Your task to perform on an android device: Open Reddit.com Image 0: 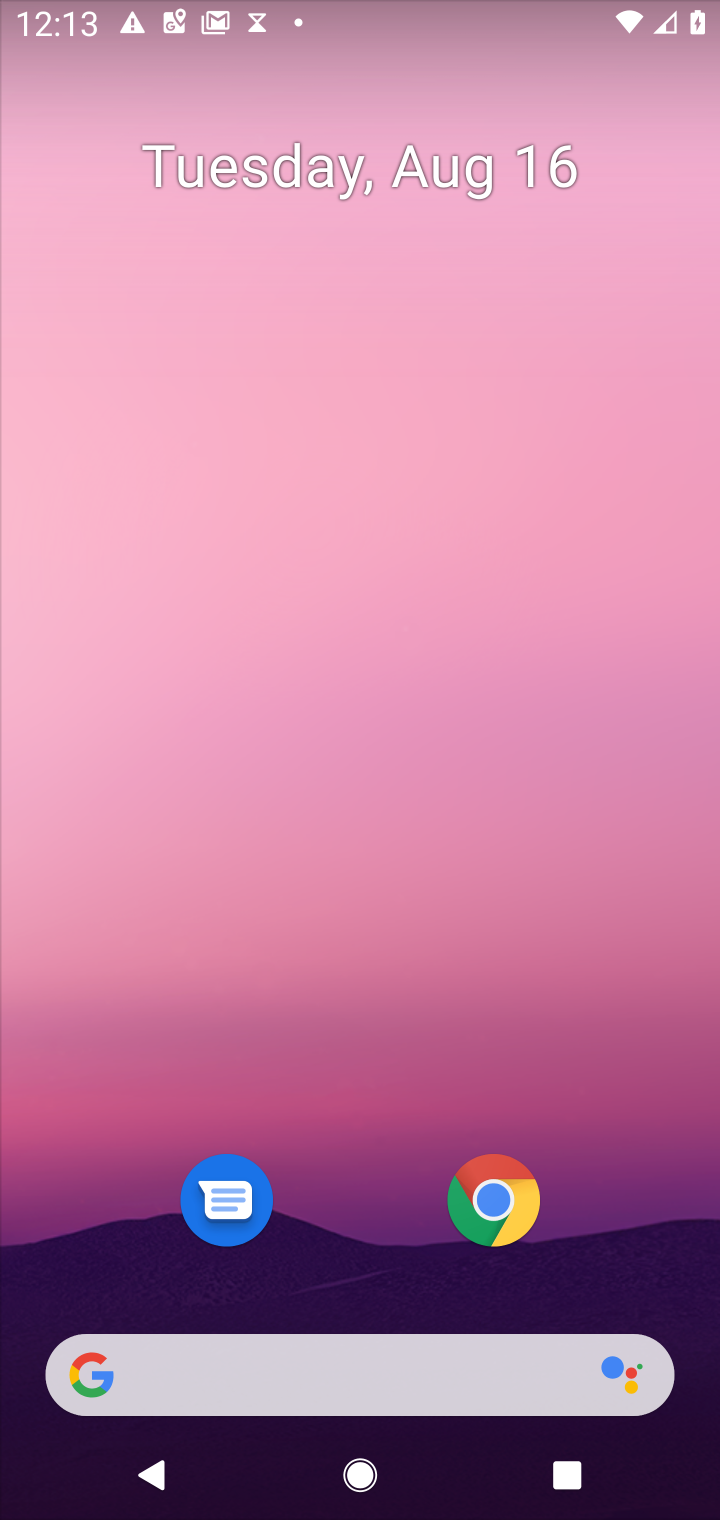
Step 0: click (522, 1203)
Your task to perform on an android device: Open Reddit.com Image 1: 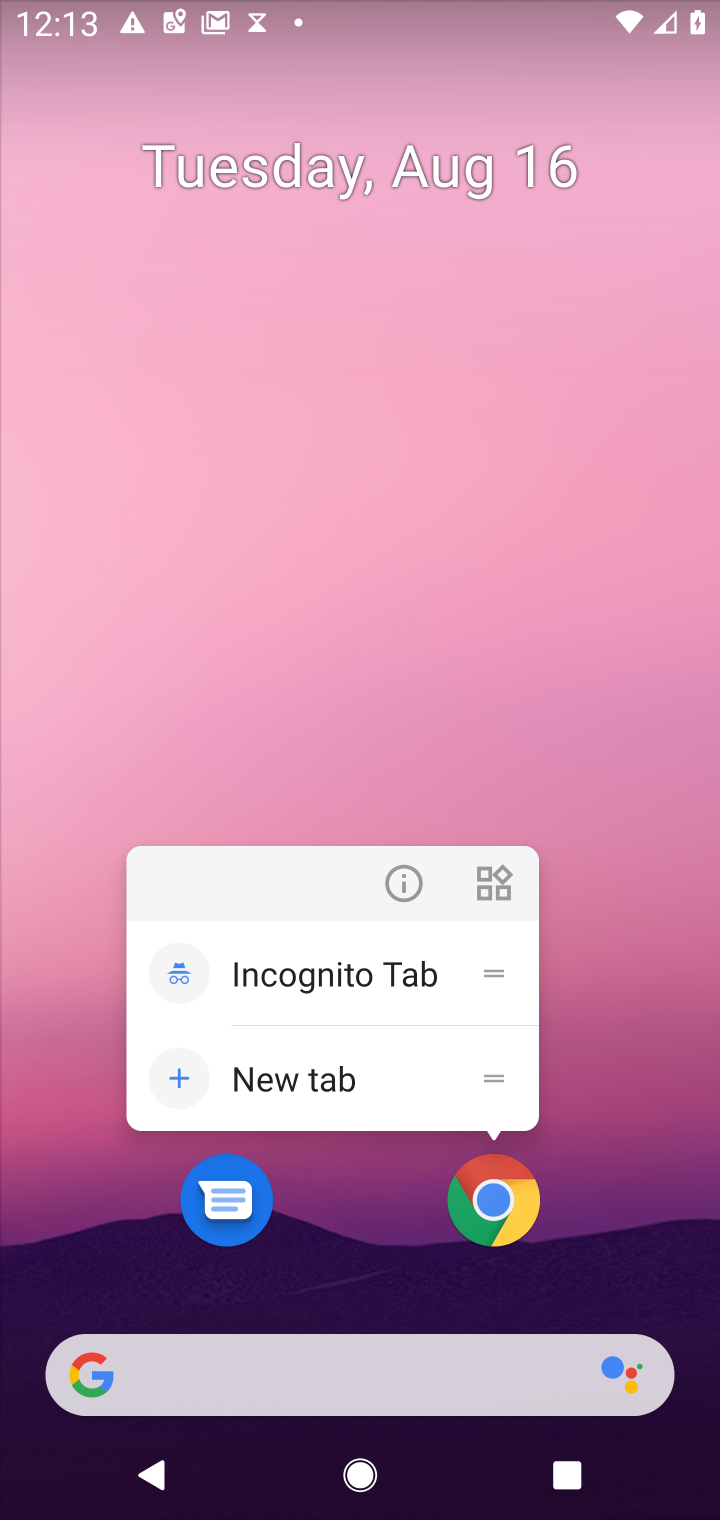
Step 1: click (522, 1203)
Your task to perform on an android device: Open Reddit.com Image 2: 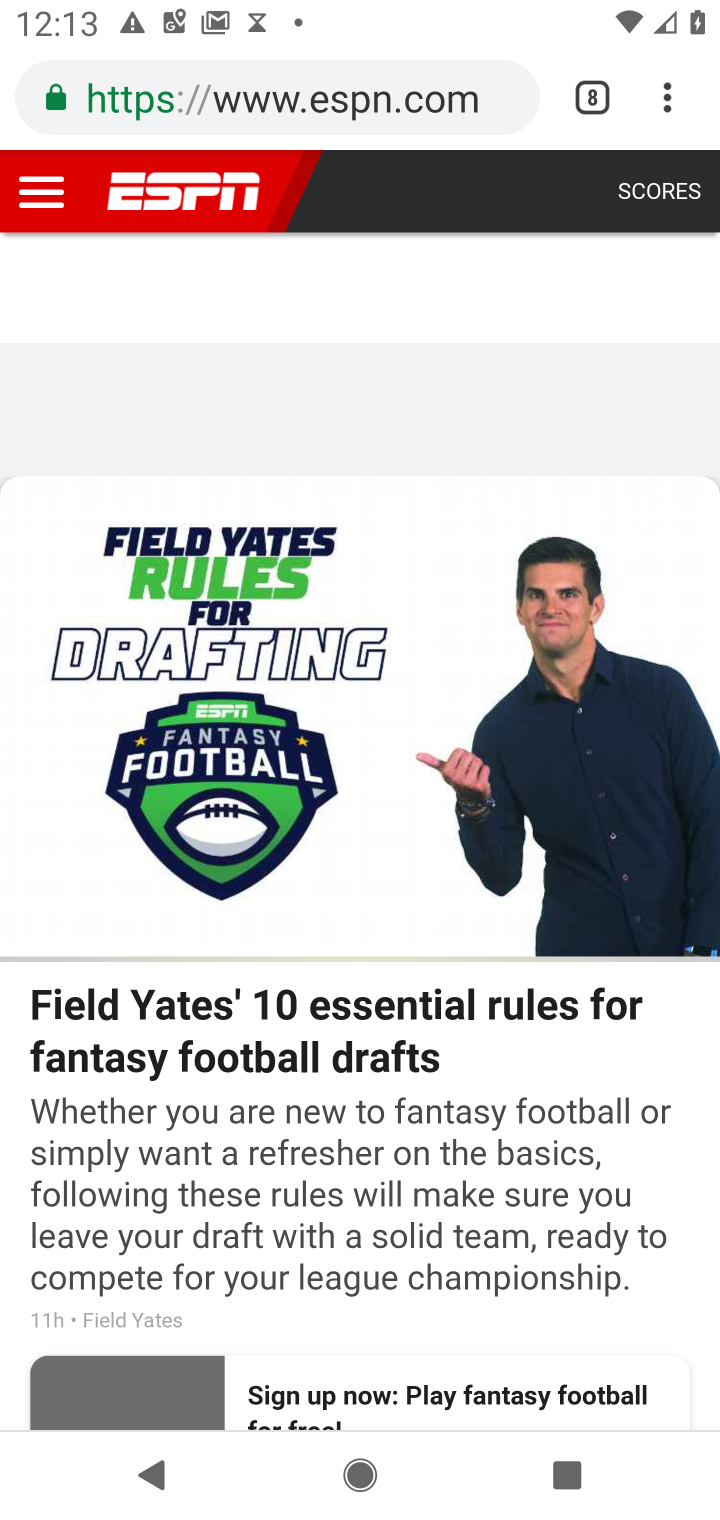
Step 2: click (579, 77)
Your task to perform on an android device: Open Reddit.com Image 3: 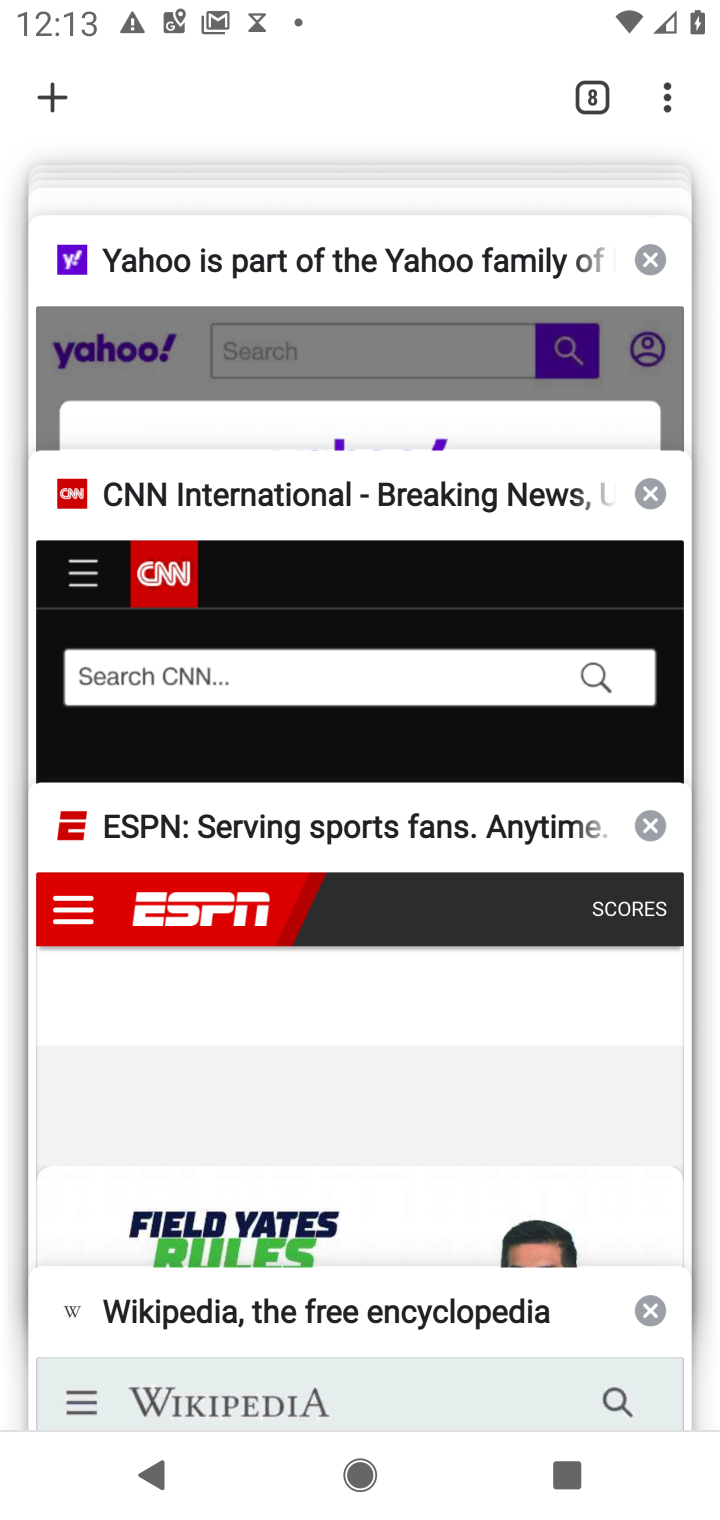
Step 3: click (52, 94)
Your task to perform on an android device: Open Reddit.com Image 4: 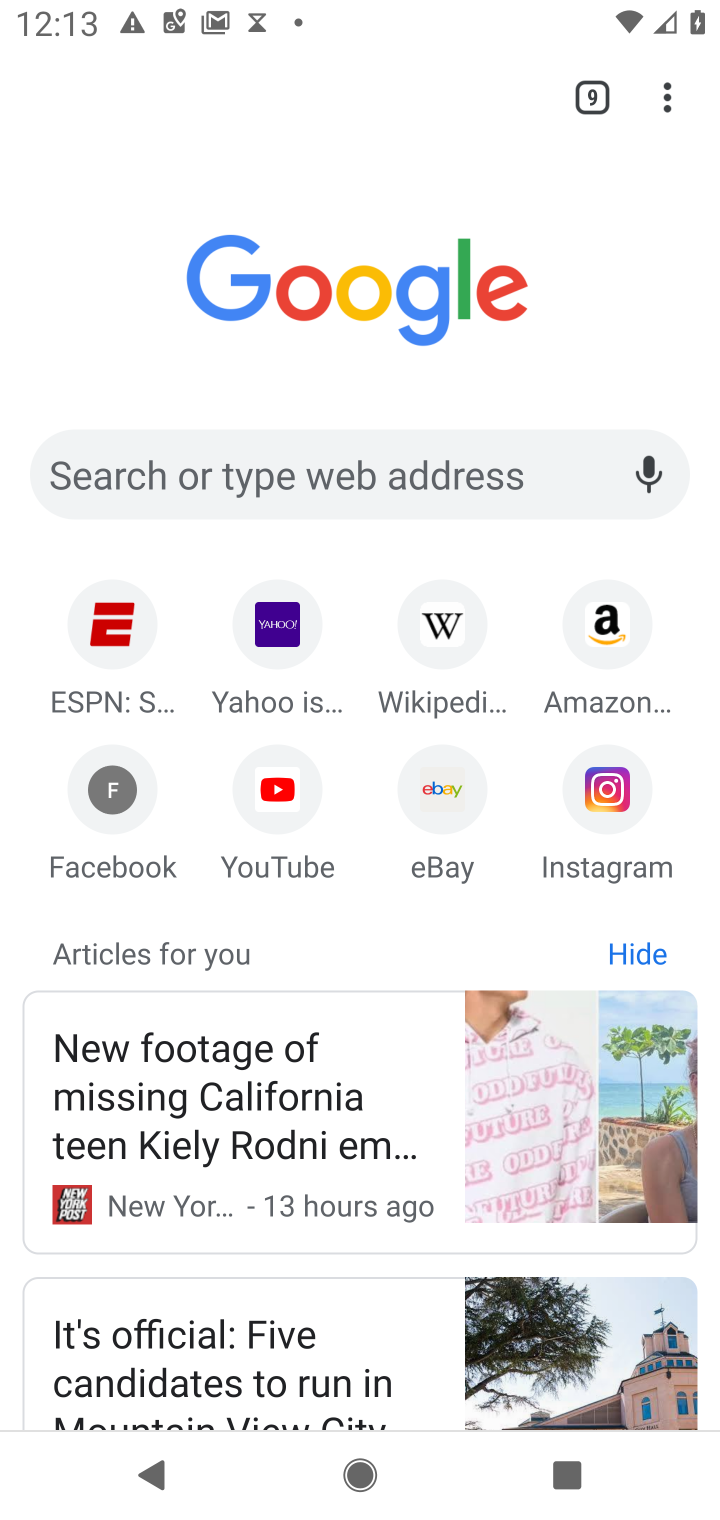
Step 4: click (312, 490)
Your task to perform on an android device: Open Reddit.com Image 5: 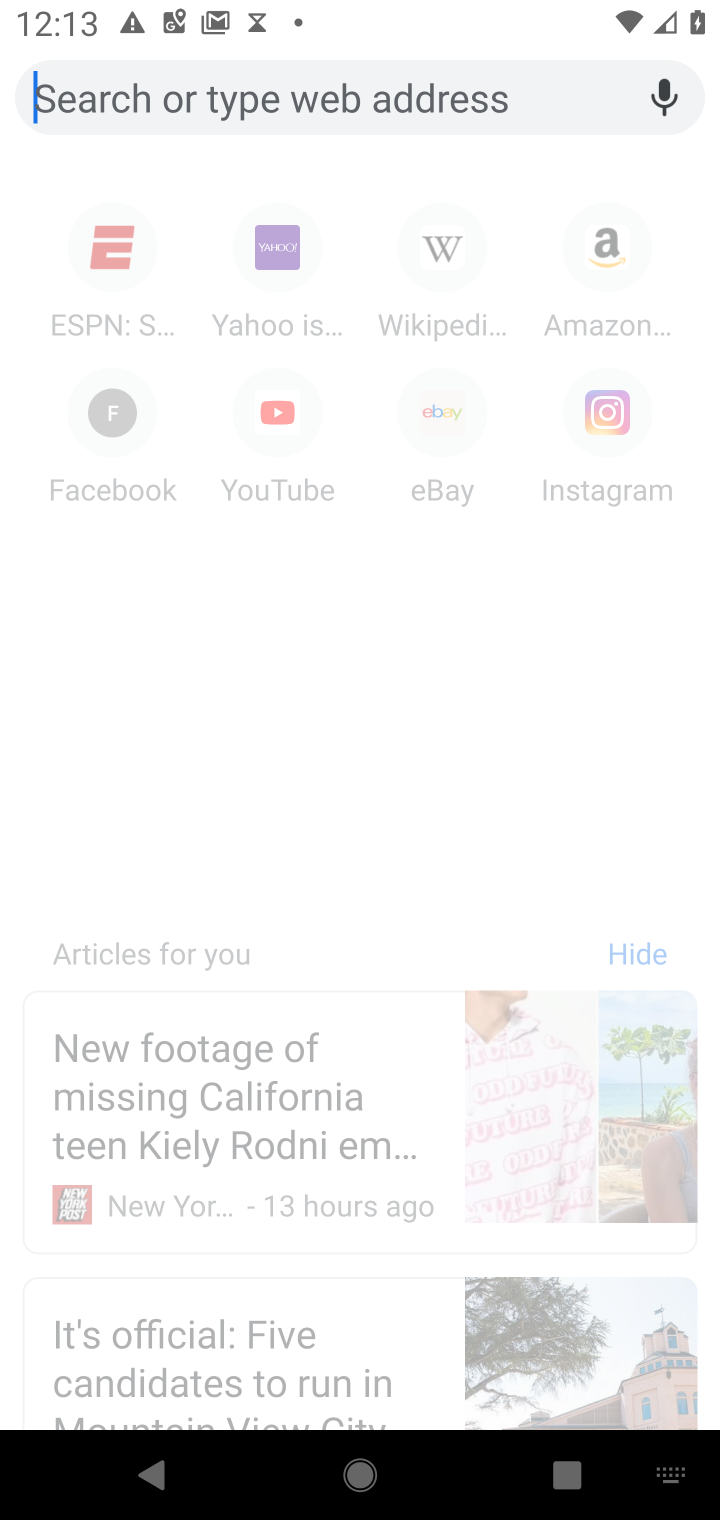
Step 5: type "Reddit.com"
Your task to perform on an android device: Open Reddit.com Image 6: 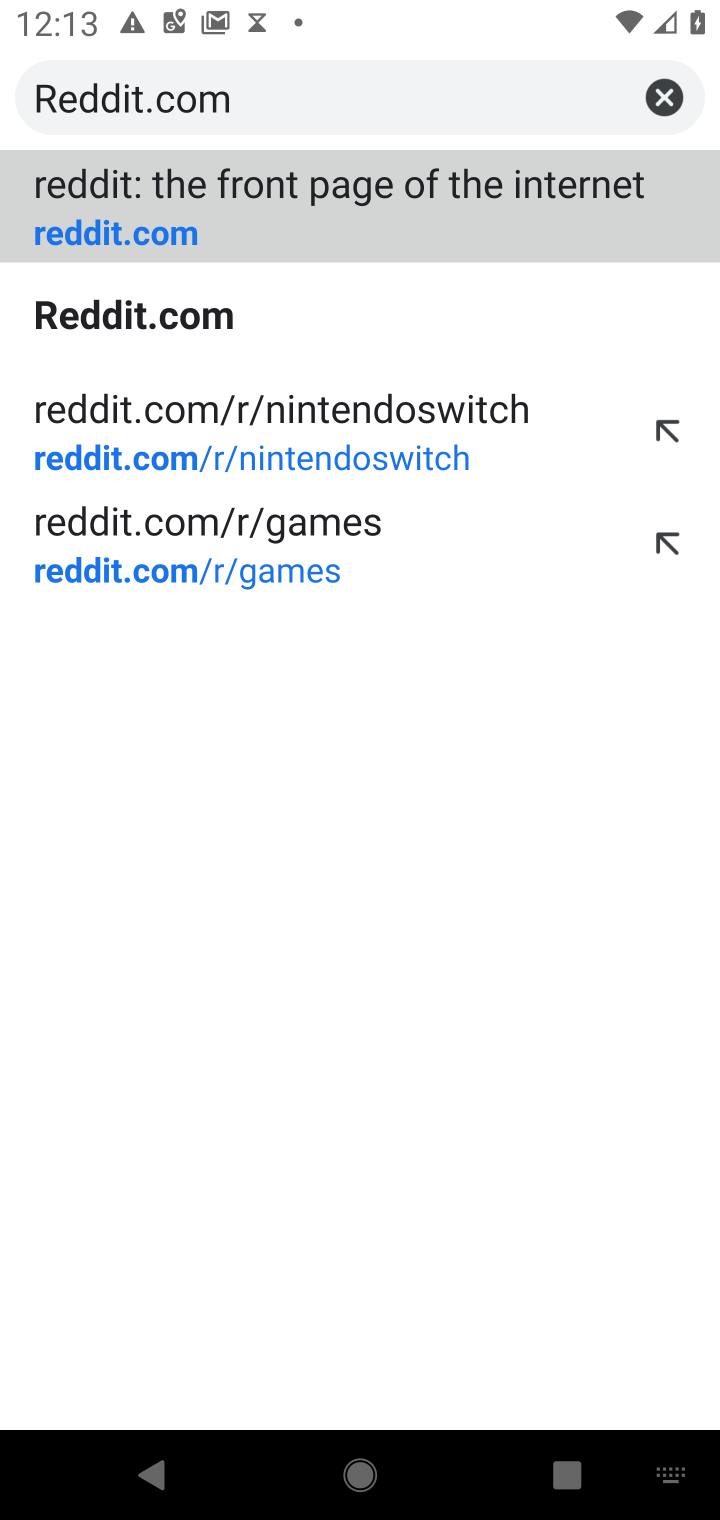
Step 6: click (243, 187)
Your task to perform on an android device: Open Reddit.com Image 7: 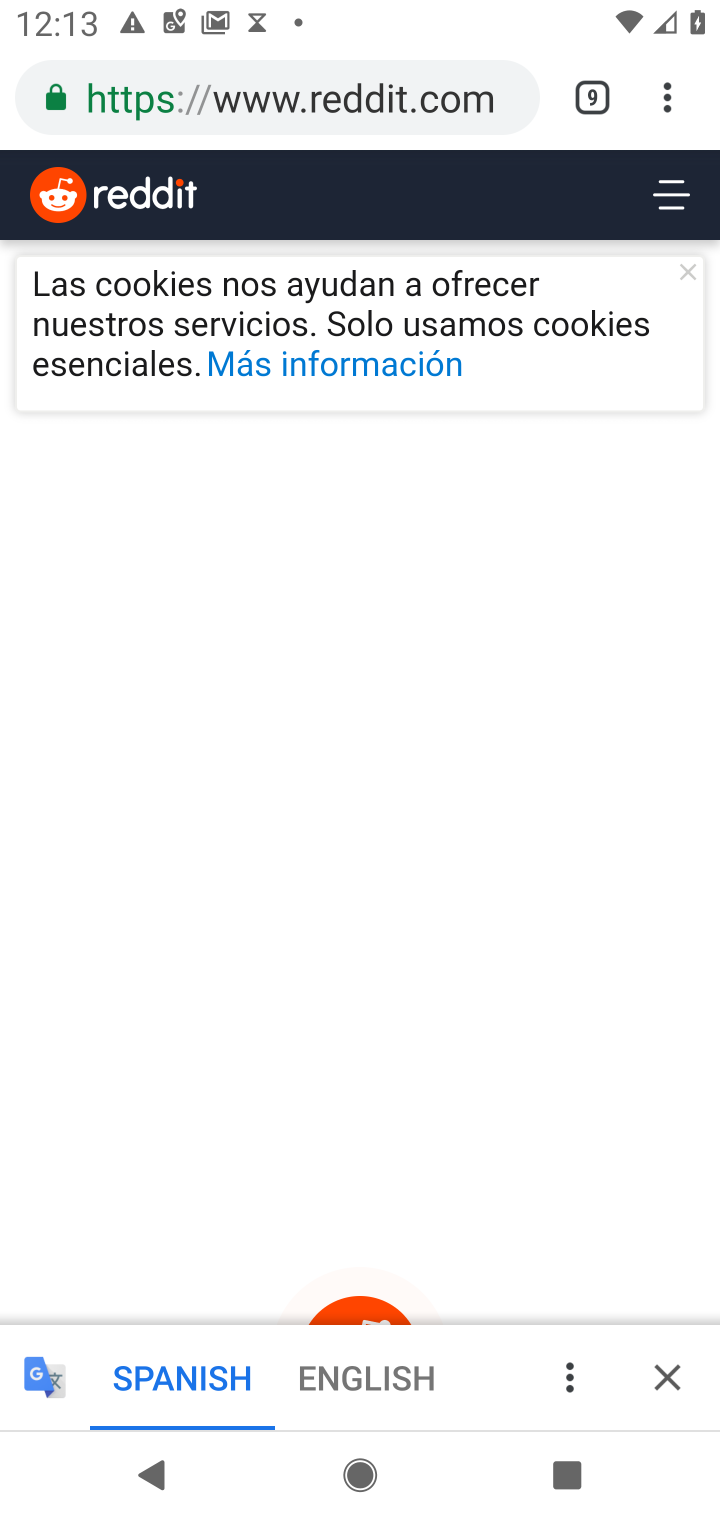
Step 7: task complete